Your task to perform on an android device: Open Amazon Image 0: 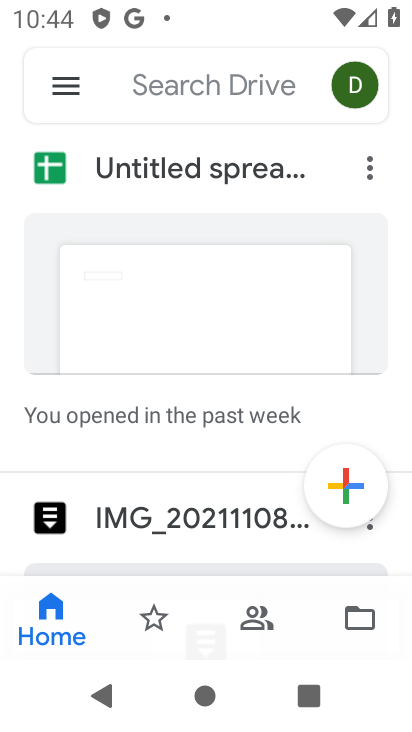
Step 0: press home button
Your task to perform on an android device: Open Amazon Image 1: 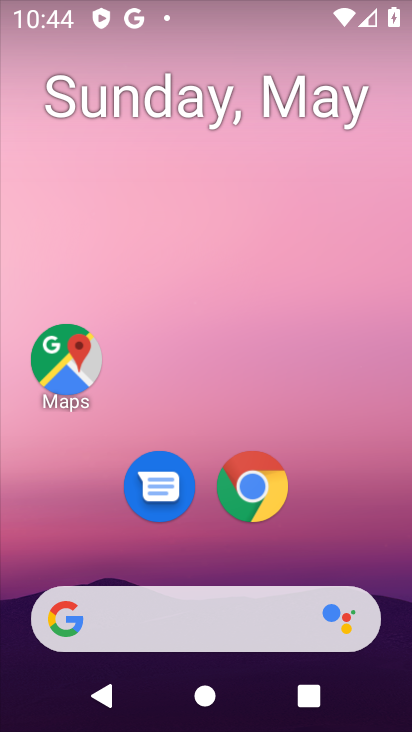
Step 1: click (257, 501)
Your task to perform on an android device: Open Amazon Image 2: 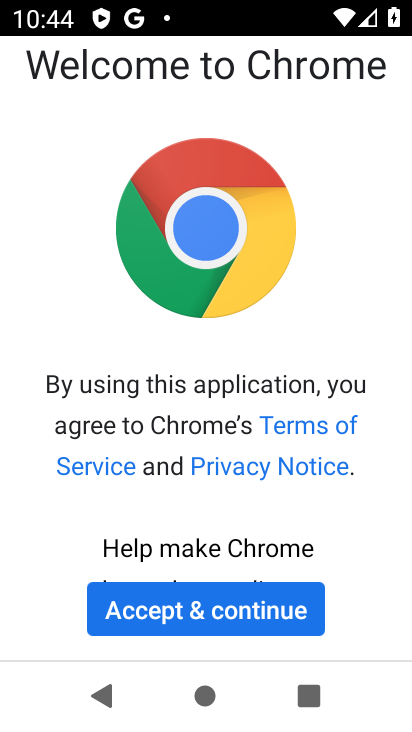
Step 2: click (197, 605)
Your task to perform on an android device: Open Amazon Image 3: 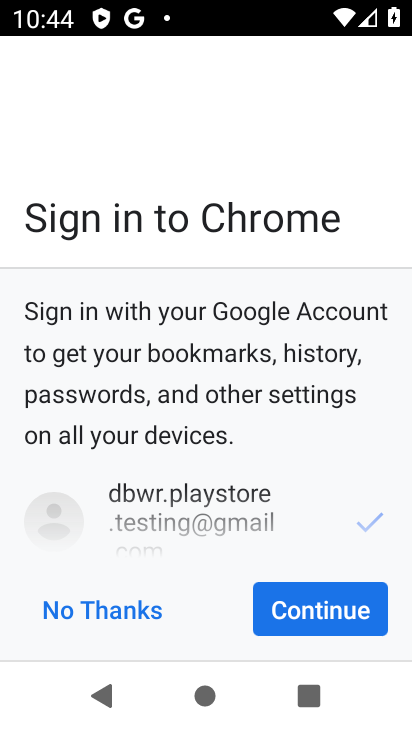
Step 3: click (294, 617)
Your task to perform on an android device: Open Amazon Image 4: 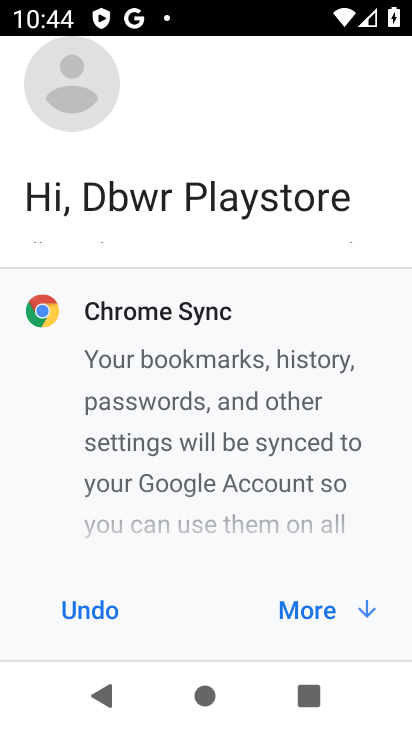
Step 4: click (301, 614)
Your task to perform on an android device: Open Amazon Image 5: 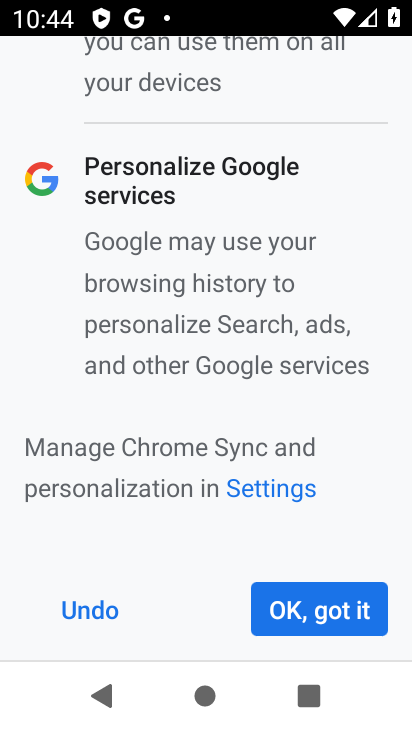
Step 5: click (301, 614)
Your task to perform on an android device: Open Amazon Image 6: 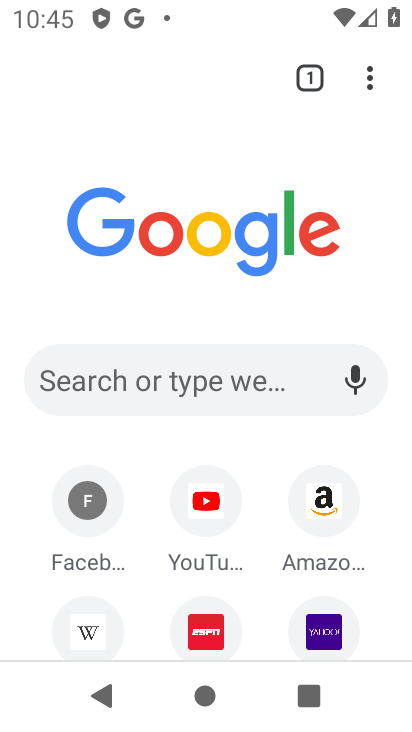
Step 6: click (334, 498)
Your task to perform on an android device: Open Amazon Image 7: 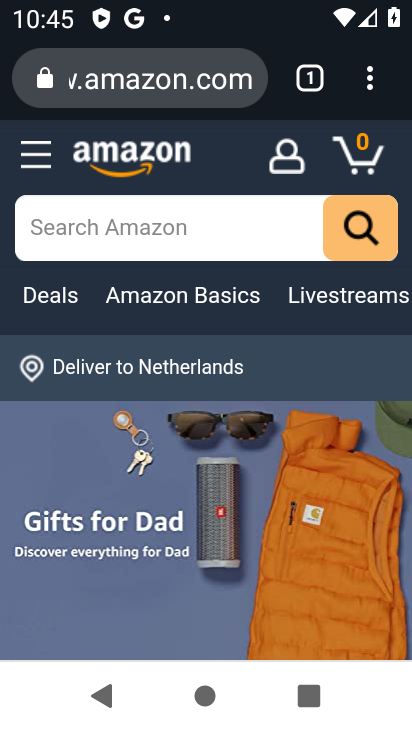
Step 7: task complete